Your task to perform on an android device: Open display settings Image 0: 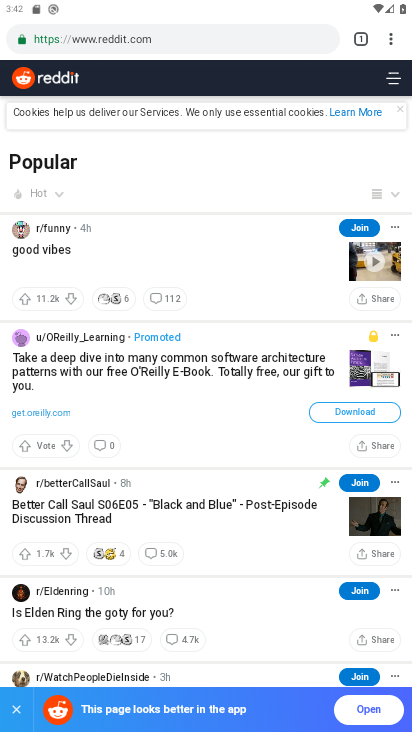
Step 0: press home button
Your task to perform on an android device: Open display settings Image 1: 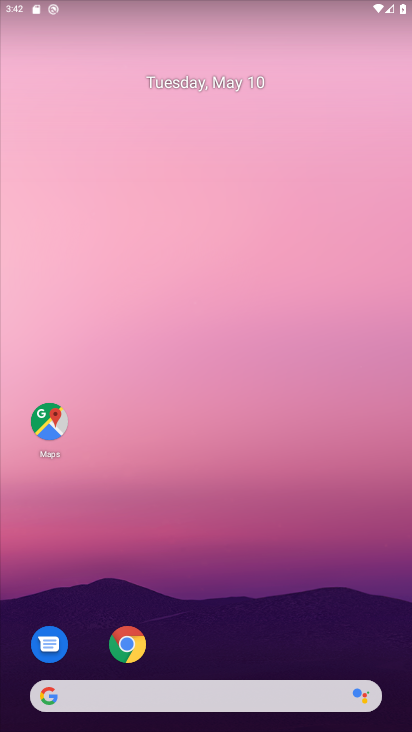
Step 1: drag from (207, 650) to (239, 71)
Your task to perform on an android device: Open display settings Image 2: 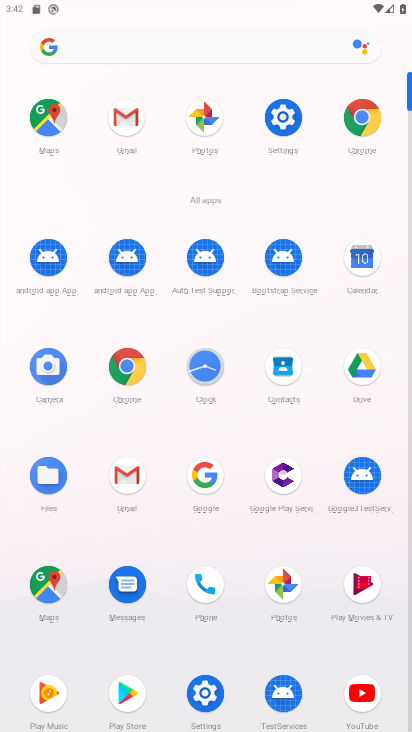
Step 2: click (281, 112)
Your task to perform on an android device: Open display settings Image 3: 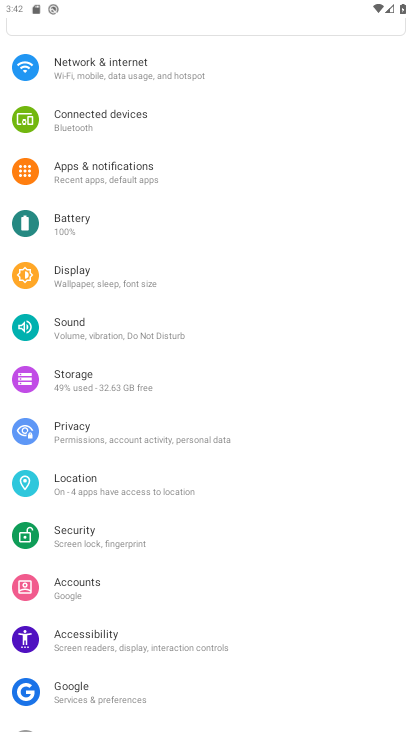
Step 3: click (103, 268)
Your task to perform on an android device: Open display settings Image 4: 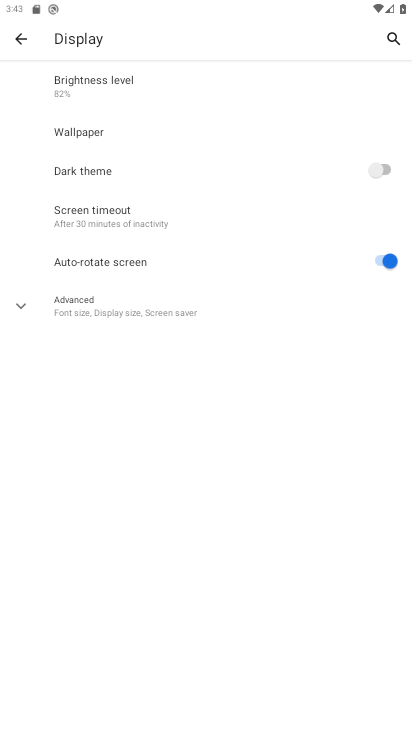
Step 4: click (22, 297)
Your task to perform on an android device: Open display settings Image 5: 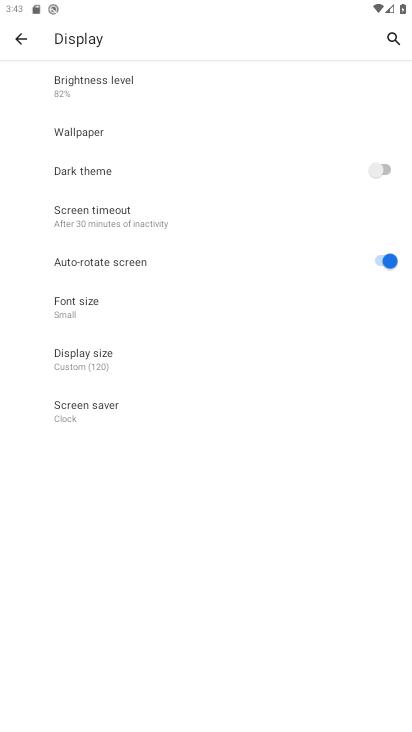
Step 5: task complete